Your task to perform on an android device: Show me popular games on the Play Store Image 0: 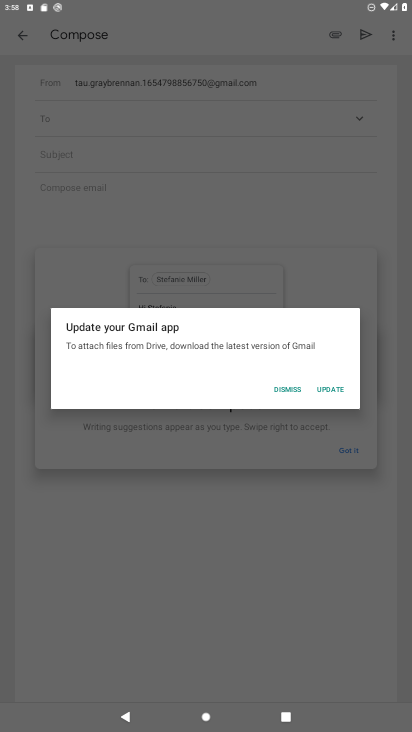
Step 0: press home button
Your task to perform on an android device: Show me popular games on the Play Store Image 1: 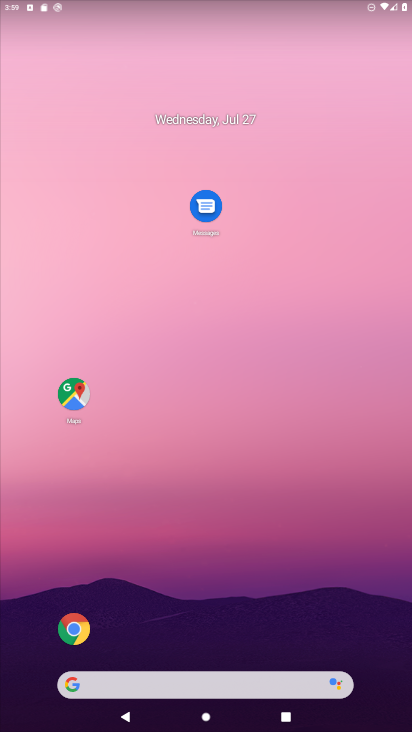
Step 1: drag from (235, 638) to (279, 281)
Your task to perform on an android device: Show me popular games on the Play Store Image 2: 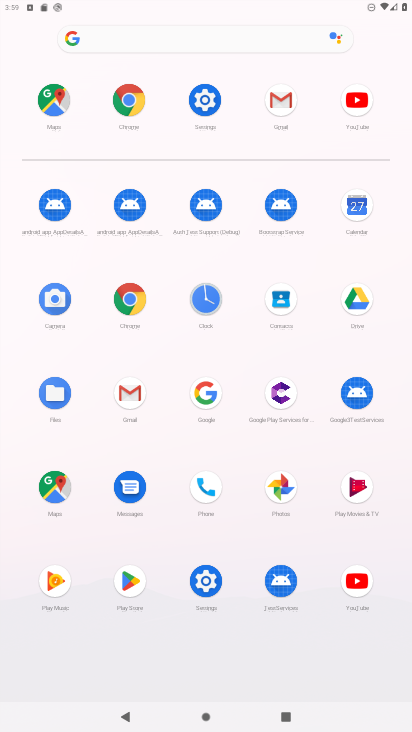
Step 2: click (126, 573)
Your task to perform on an android device: Show me popular games on the Play Store Image 3: 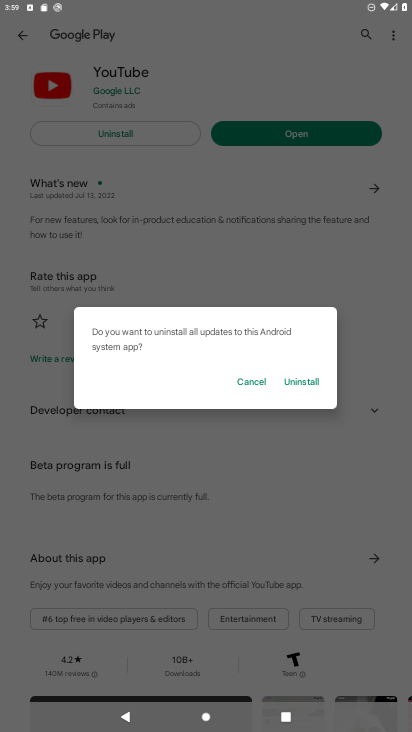
Step 3: click (254, 378)
Your task to perform on an android device: Show me popular games on the Play Store Image 4: 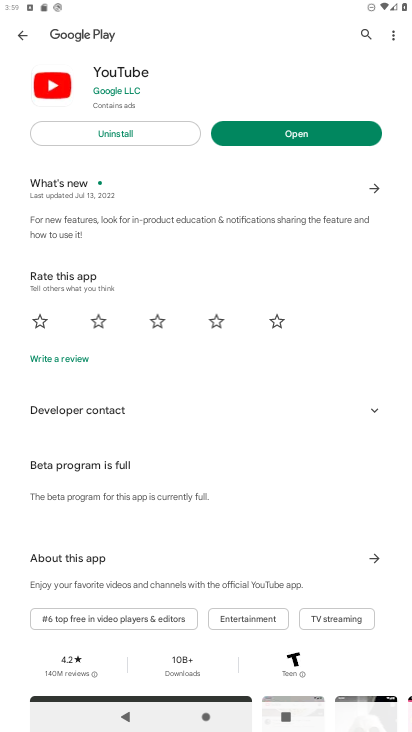
Step 4: click (15, 44)
Your task to perform on an android device: Show me popular games on the Play Store Image 5: 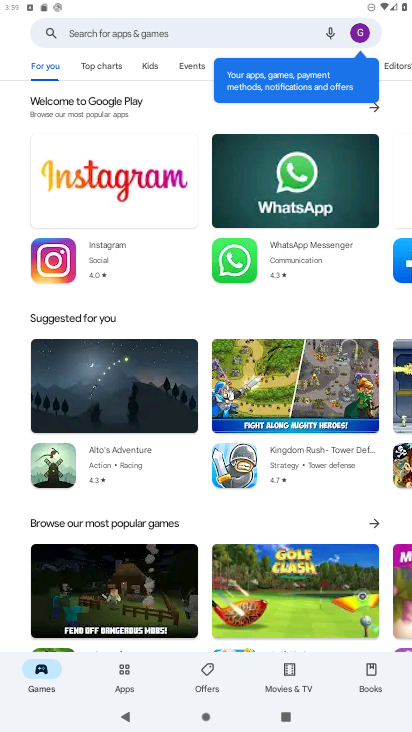
Step 5: click (101, 70)
Your task to perform on an android device: Show me popular games on the Play Store Image 6: 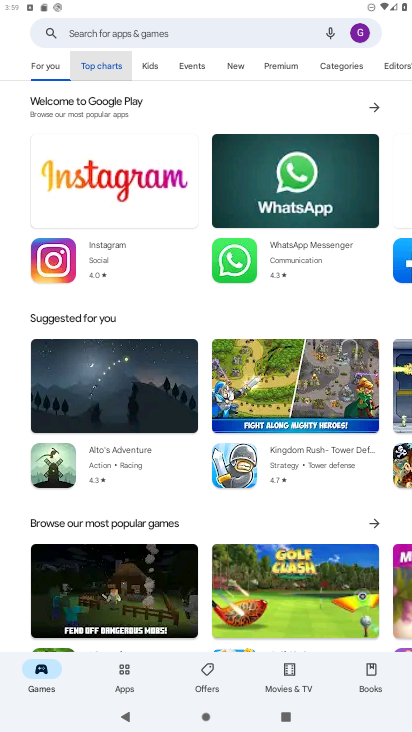
Step 6: click (101, 70)
Your task to perform on an android device: Show me popular games on the Play Store Image 7: 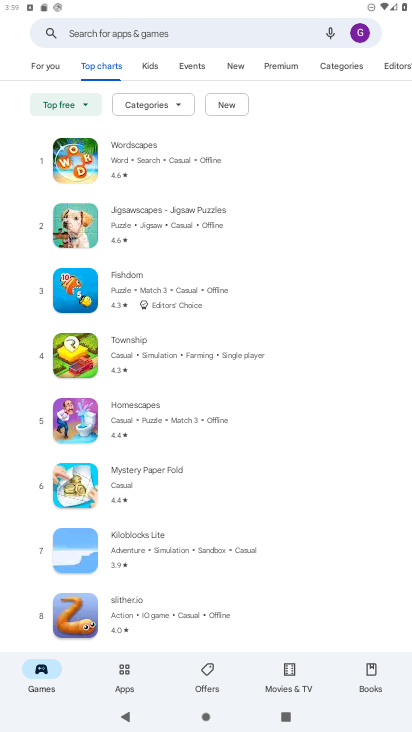
Step 7: task complete